Your task to perform on an android device: Open CNN.com Image 0: 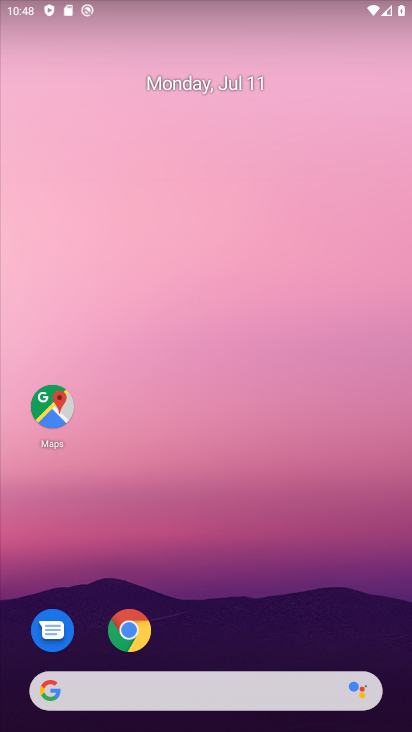
Step 0: click (123, 630)
Your task to perform on an android device: Open CNN.com Image 1: 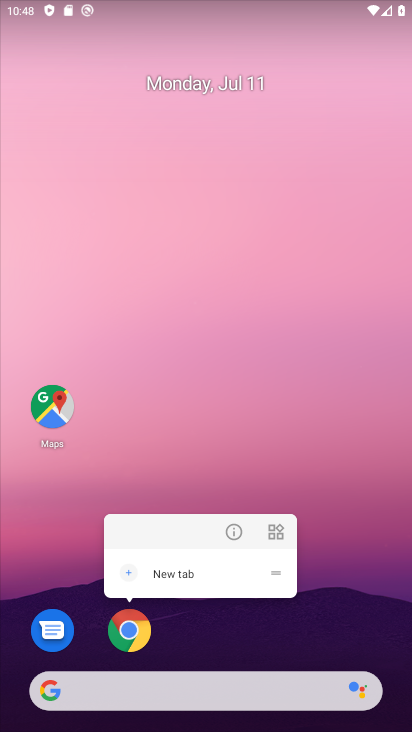
Step 1: click (132, 622)
Your task to perform on an android device: Open CNN.com Image 2: 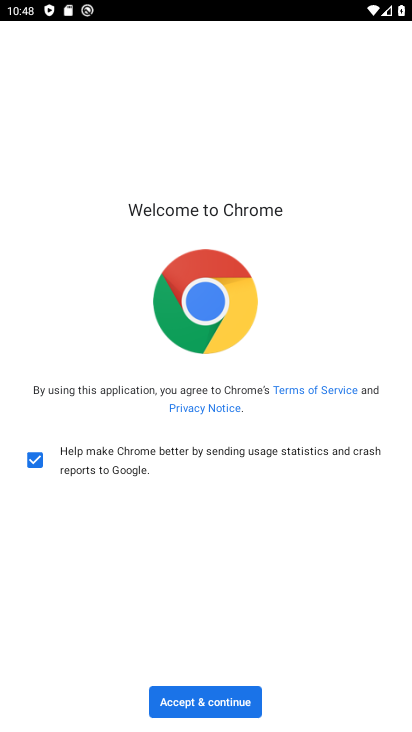
Step 2: click (223, 701)
Your task to perform on an android device: Open CNN.com Image 3: 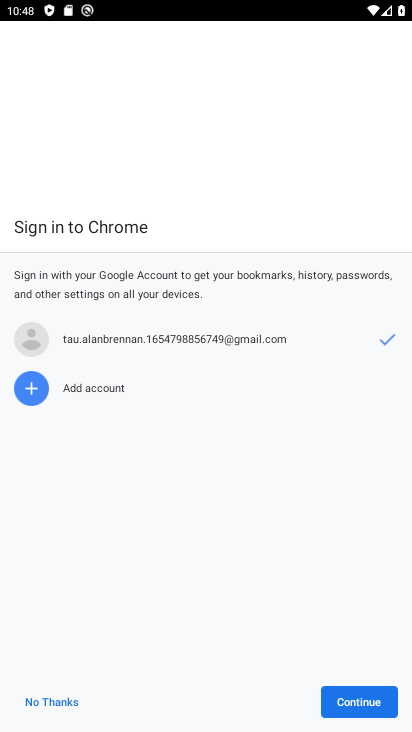
Step 3: click (335, 698)
Your task to perform on an android device: Open CNN.com Image 4: 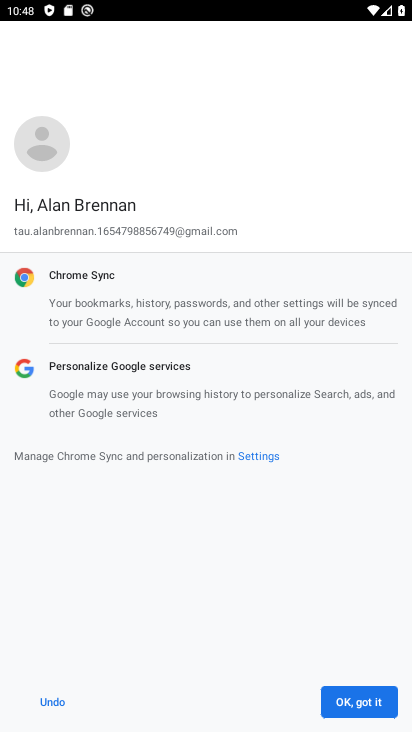
Step 4: click (367, 704)
Your task to perform on an android device: Open CNN.com Image 5: 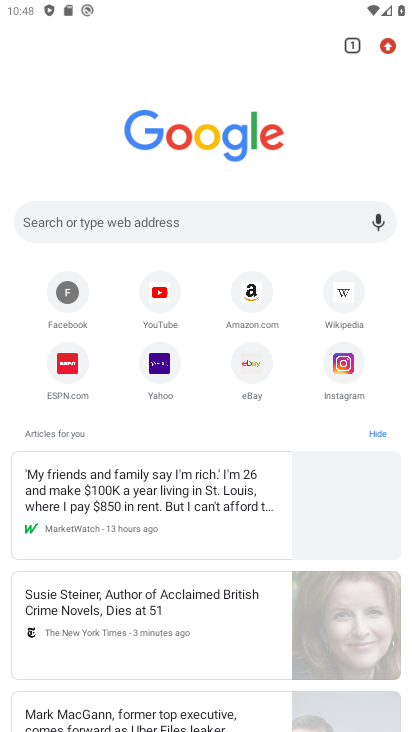
Step 5: click (263, 230)
Your task to perform on an android device: Open CNN.com Image 6: 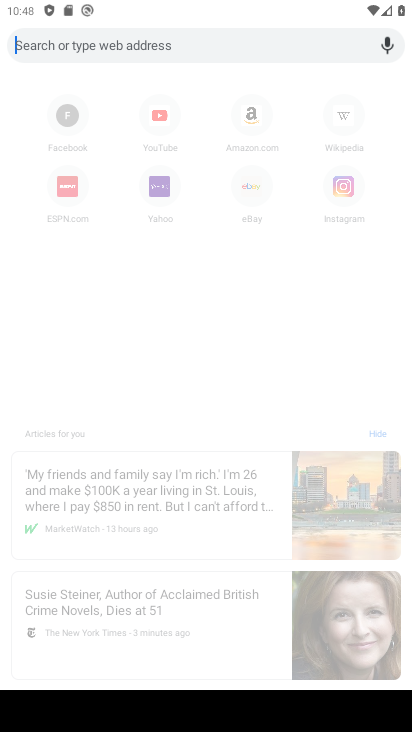
Step 6: type "cnn.com"
Your task to perform on an android device: Open CNN.com Image 7: 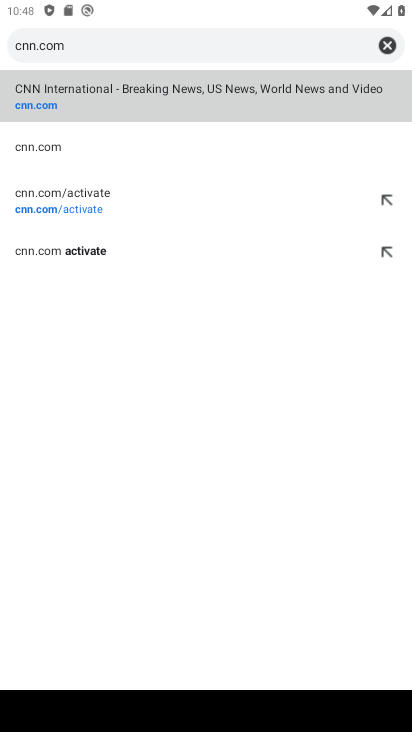
Step 7: click (147, 116)
Your task to perform on an android device: Open CNN.com Image 8: 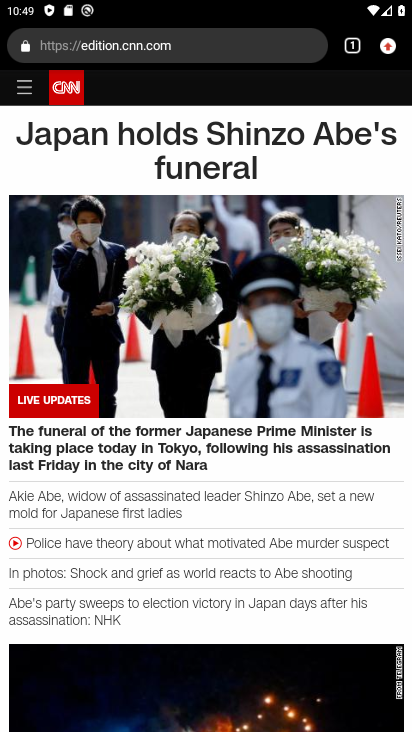
Step 8: task complete